Your task to perform on an android device: turn notification dots off Image 0: 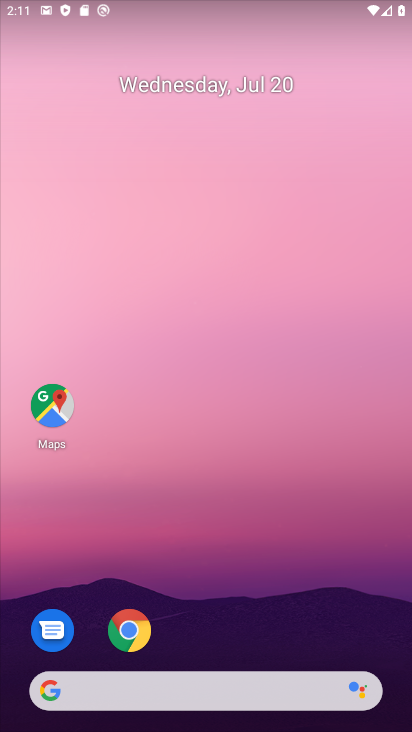
Step 0: drag from (169, 656) to (239, 183)
Your task to perform on an android device: turn notification dots off Image 1: 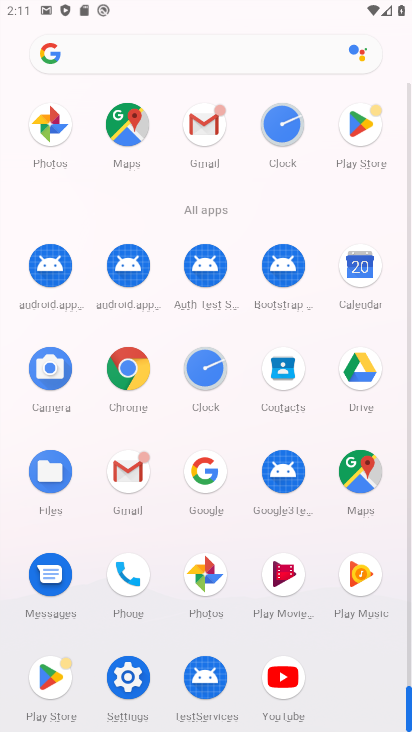
Step 1: click (127, 692)
Your task to perform on an android device: turn notification dots off Image 2: 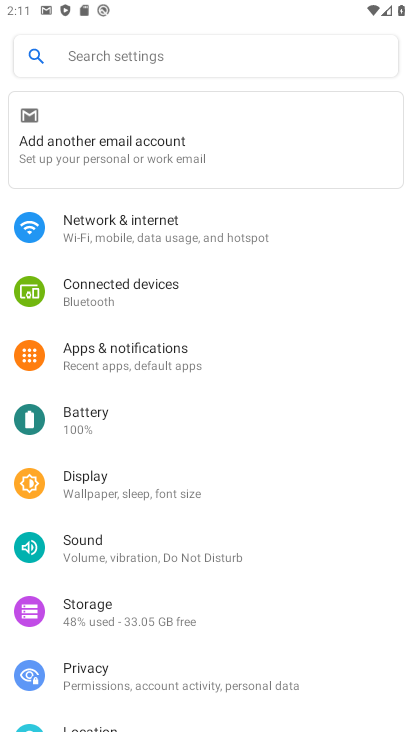
Step 2: click (186, 358)
Your task to perform on an android device: turn notification dots off Image 3: 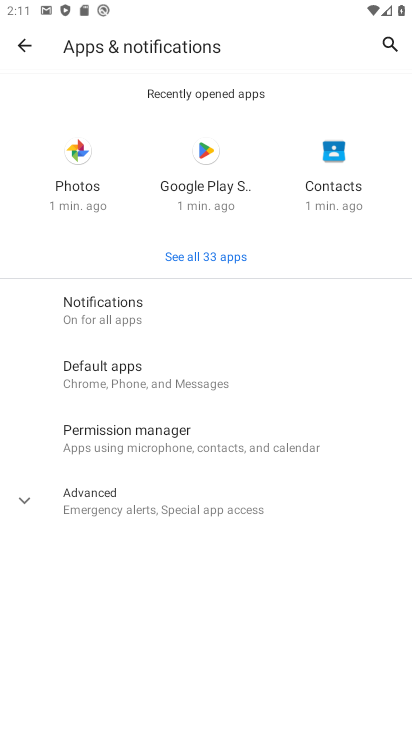
Step 3: click (183, 315)
Your task to perform on an android device: turn notification dots off Image 4: 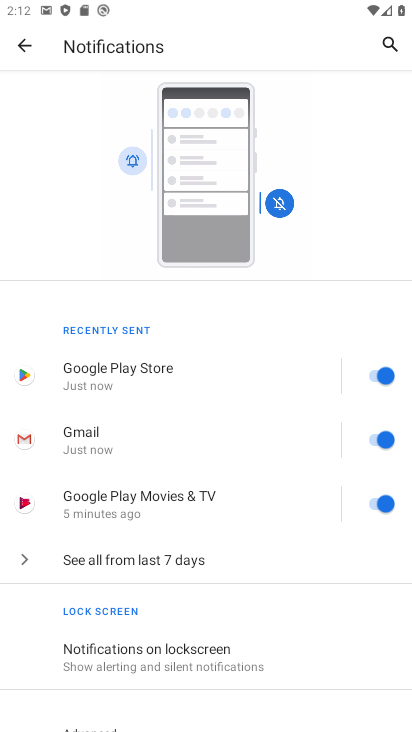
Step 4: drag from (206, 603) to (268, 367)
Your task to perform on an android device: turn notification dots off Image 5: 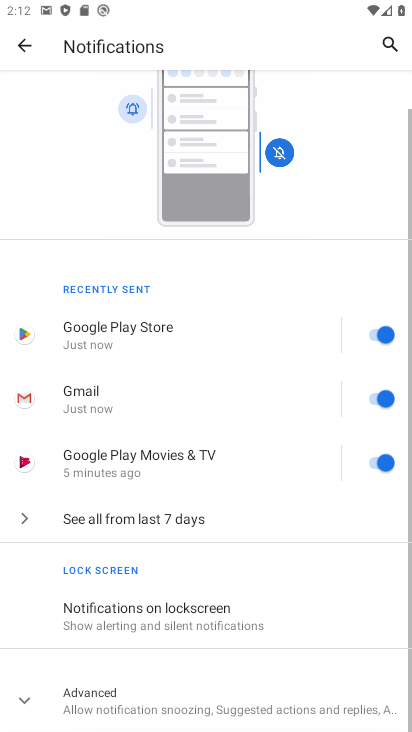
Step 5: drag from (303, 361) to (375, 162)
Your task to perform on an android device: turn notification dots off Image 6: 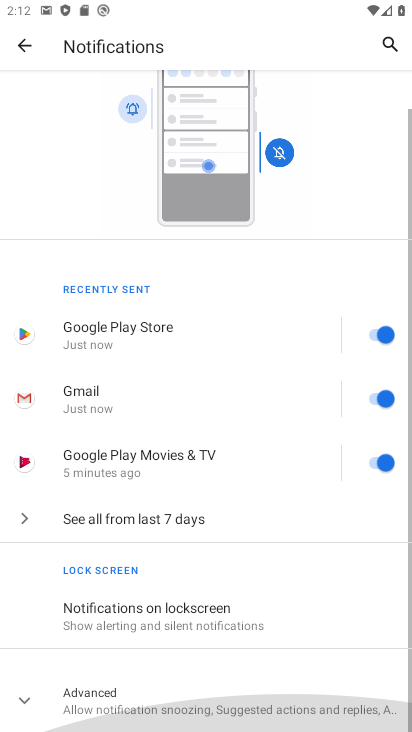
Step 6: drag from (290, 237) to (72, 0)
Your task to perform on an android device: turn notification dots off Image 7: 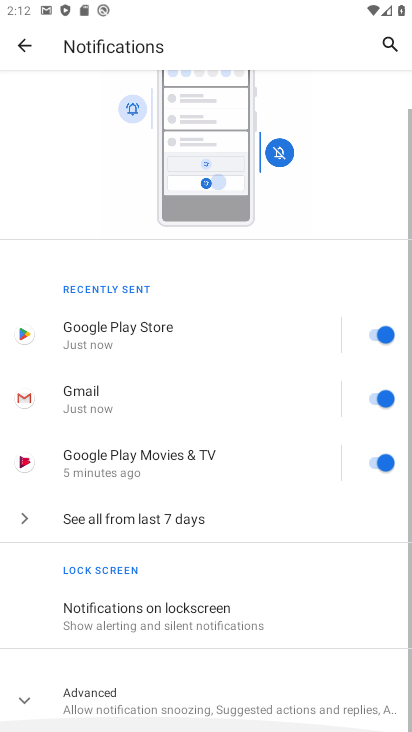
Step 7: drag from (204, 664) to (328, 116)
Your task to perform on an android device: turn notification dots off Image 8: 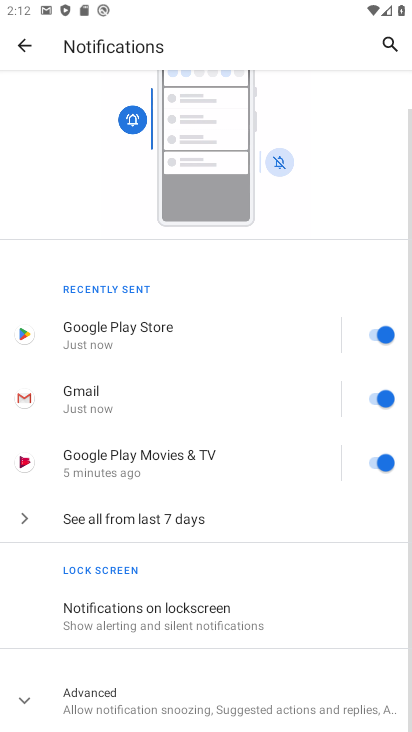
Step 8: click (225, 699)
Your task to perform on an android device: turn notification dots off Image 9: 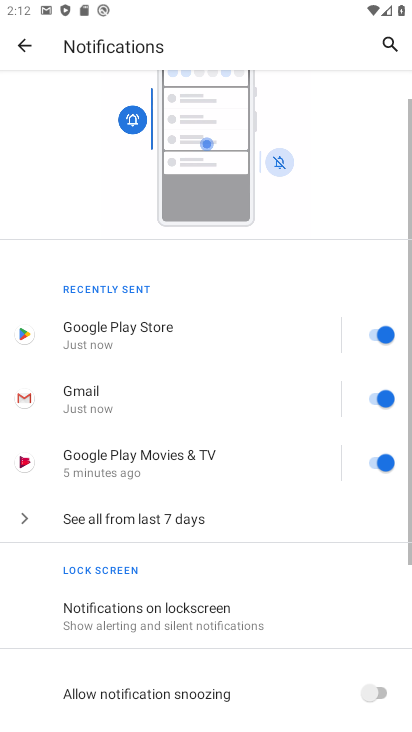
Step 9: drag from (225, 697) to (391, 43)
Your task to perform on an android device: turn notification dots off Image 10: 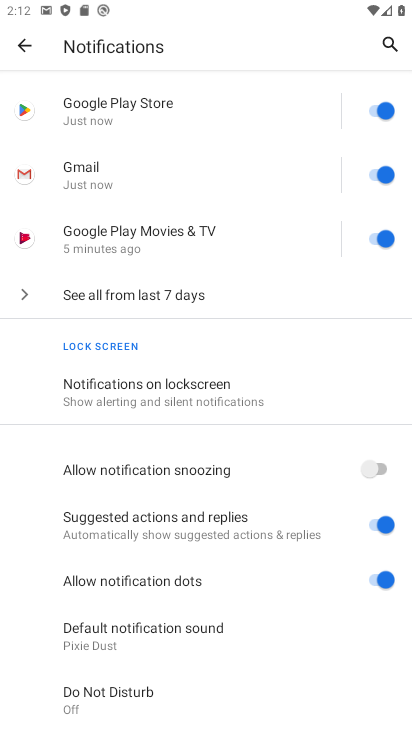
Step 10: click (371, 582)
Your task to perform on an android device: turn notification dots off Image 11: 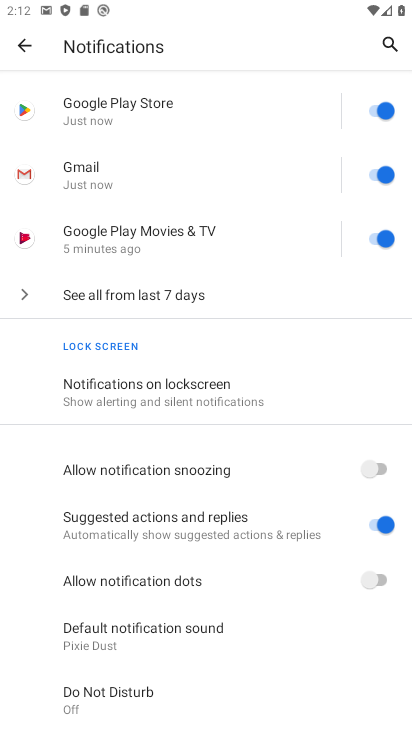
Step 11: task complete